Your task to perform on an android device: delete location history Image 0: 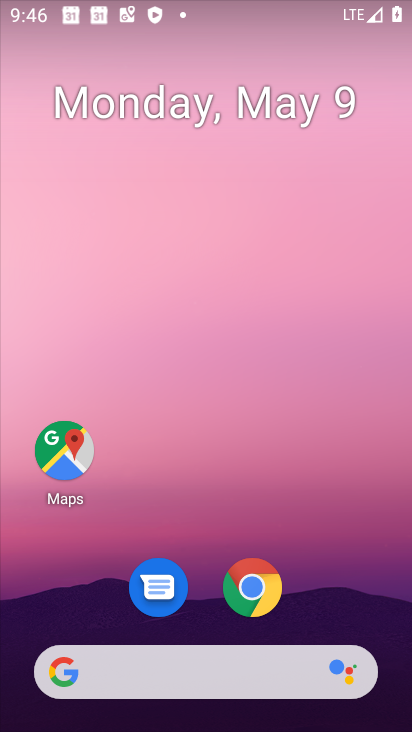
Step 0: click (72, 460)
Your task to perform on an android device: delete location history Image 1: 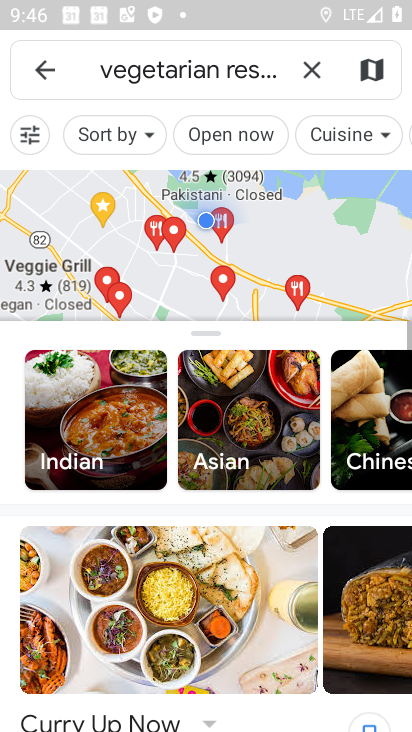
Step 1: click (50, 69)
Your task to perform on an android device: delete location history Image 2: 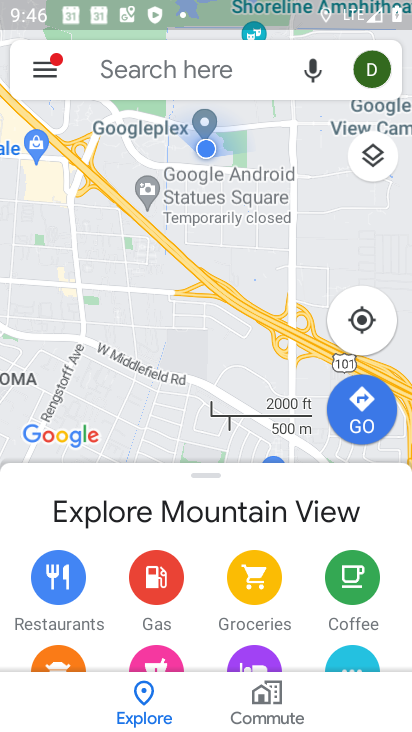
Step 2: click (50, 69)
Your task to perform on an android device: delete location history Image 3: 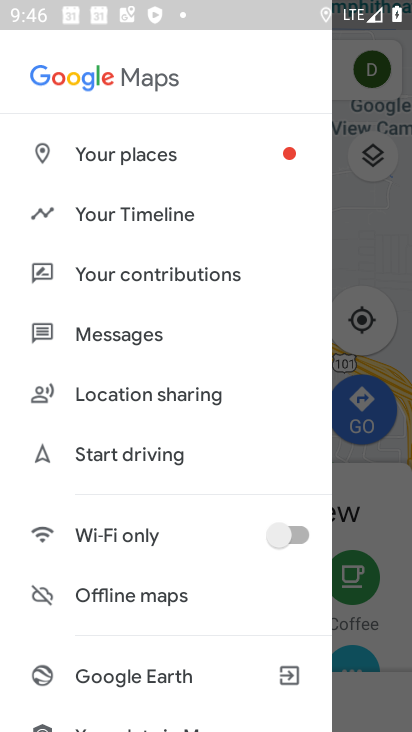
Step 3: click (159, 215)
Your task to perform on an android device: delete location history Image 4: 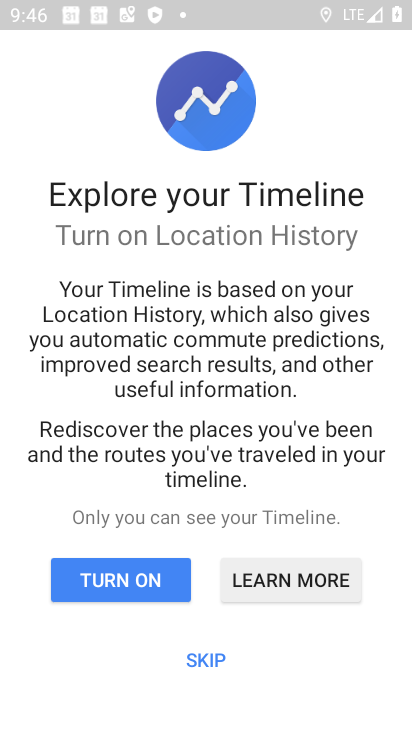
Step 4: click (132, 583)
Your task to perform on an android device: delete location history Image 5: 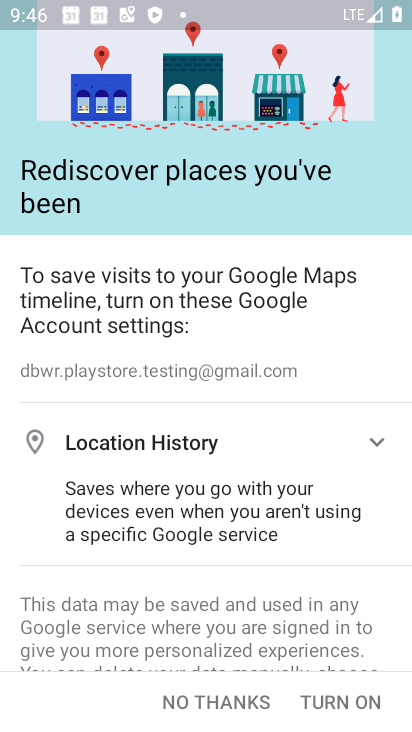
Step 5: click (357, 711)
Your task to perform on an android device: delete location history Image 6: 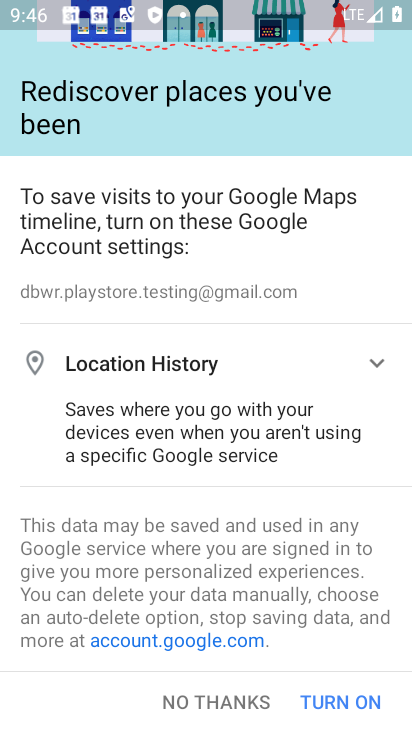
Step 6: click (347, 708)
Your task to perform on an android device: delete location history Image 7: 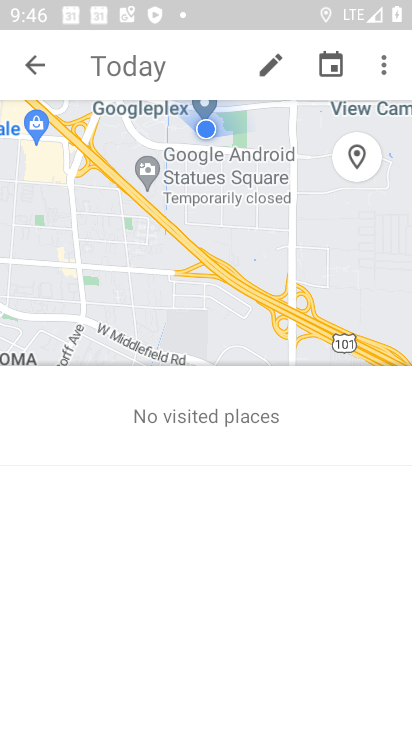
Step 7: click (386, 59)
Your task to perform on an android device: delete location history Image 8: 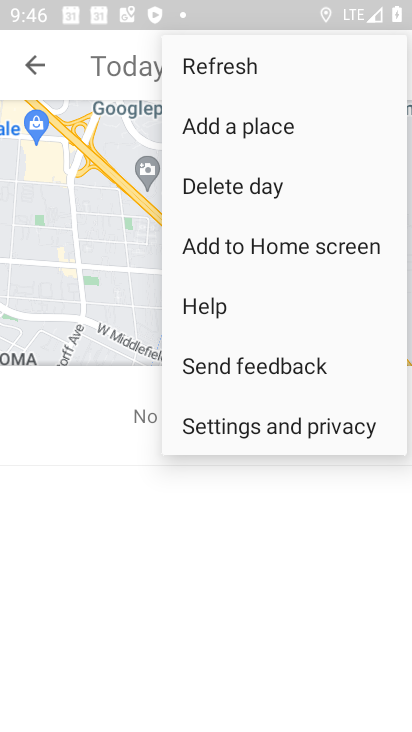
Step 8: click (257, 435)
Your task to perform on an android device: delete location history Image 9: 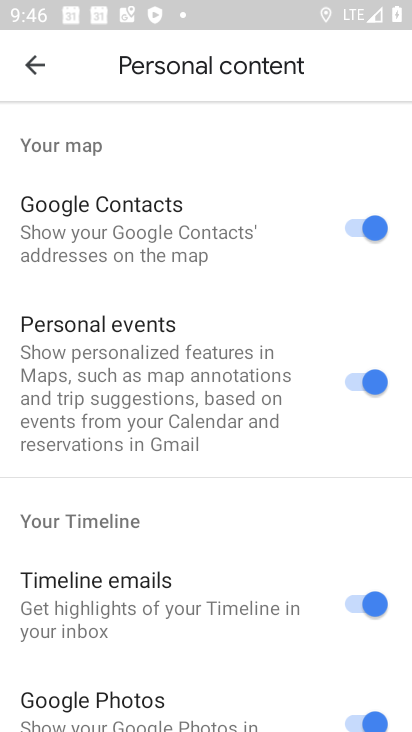
Step 9: drag from (134, 623) to (262, 132)
Your task to perform on an android device: delete location history Image 10: 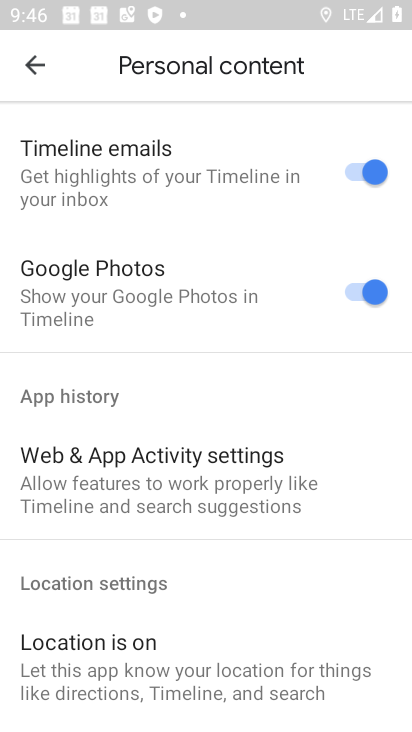
Step 10: drag from (207, 547) to (263, 124)
Your task to perform on an android device: delete location history Image 11: 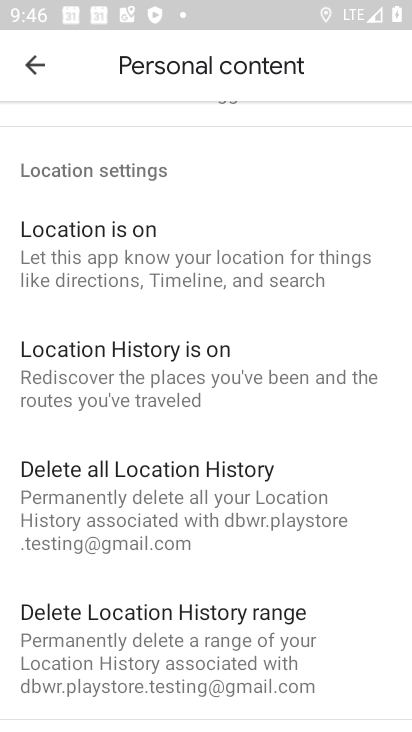
Step 11: click (180, 532)
Your task to perform on an android device: delete location history Image 12: 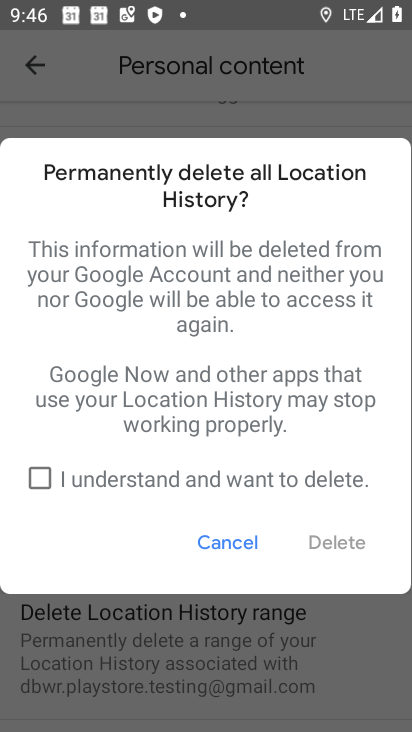
Step 12: click (37, 479)
Your task to perform on an android device: delete location history Image 13: 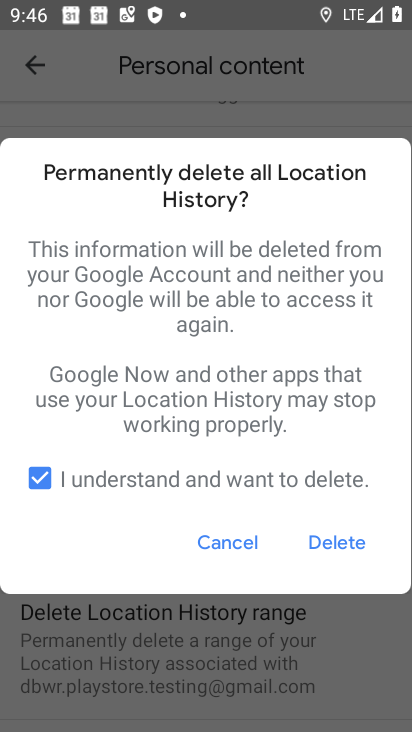
Step 13: click (315, 558)
Your task to perform on an android device: delete location history Image 14: 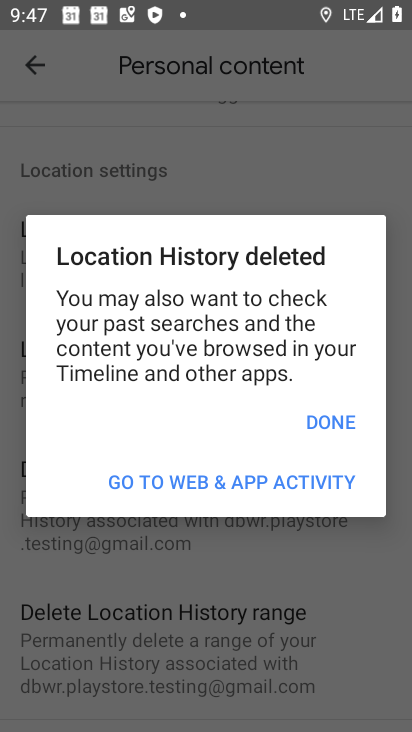
Step 14: click (364, 445)
Your task to perform on an android device: delete location history Image 15: 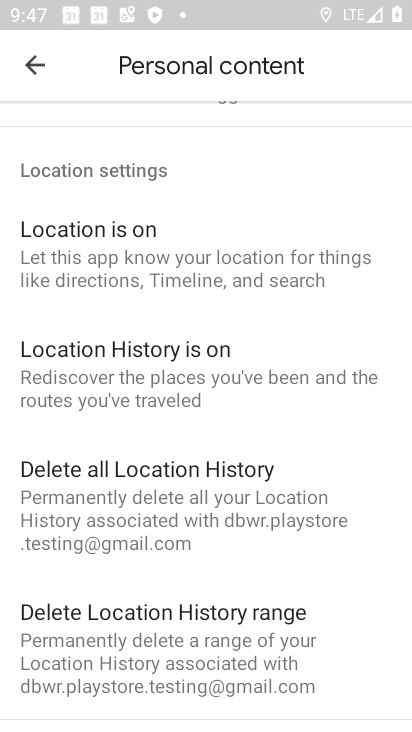
Step 15: task complete